Your task to perform on an android device: Open location settings Image 0: 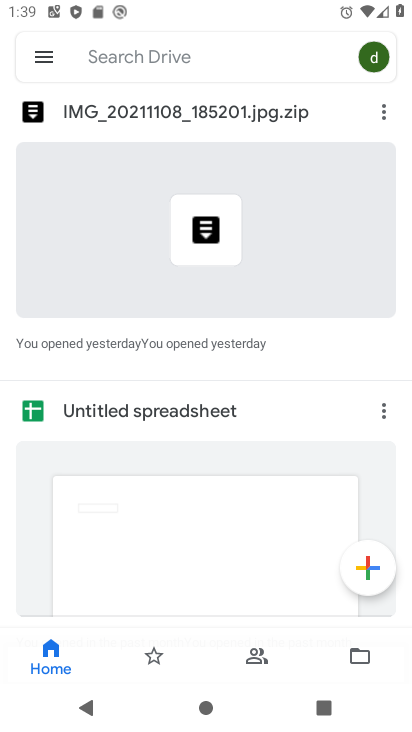
Step 0: press home button
Your task to perform on an android device: Open location settings Image 1: 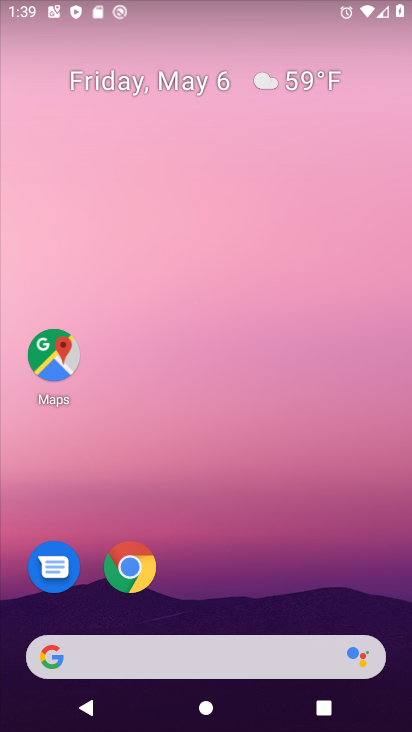
Step 1: drag from (326, 597) to (275, 12)
Your task to perform on an android device: Open location settings Image 2: 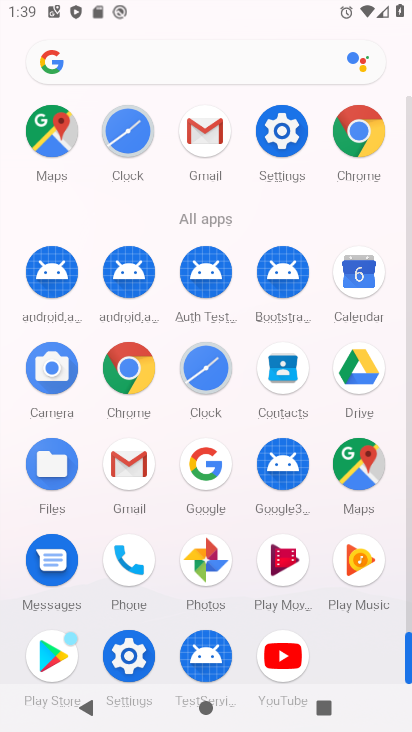
Step 2: click (134, 652)
Your task to perform on an android device: Open location settings Image 3: 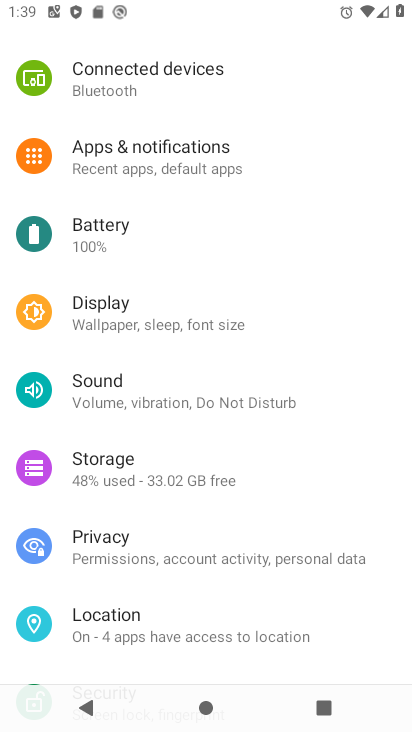
Step 3: click (189, 618)
Your task to perform on an android device: Open location settings Image 4: 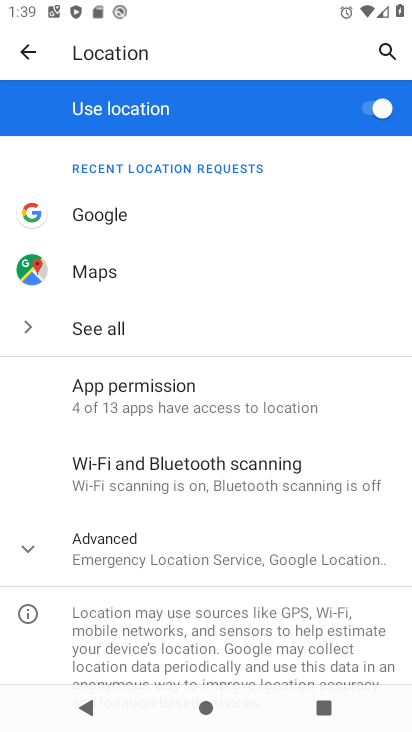
Step 4: task complete